Your task to perform on an android device: Go to Maps Image 0: 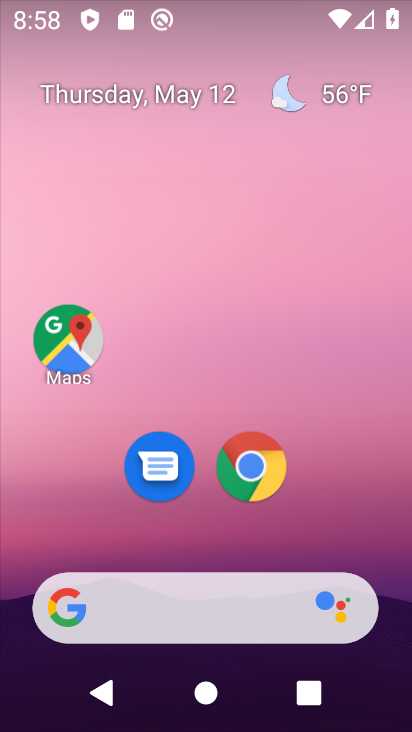
Step 0: click (57, 344)
Your task to perform on an android device: Go to Maps Image 1: 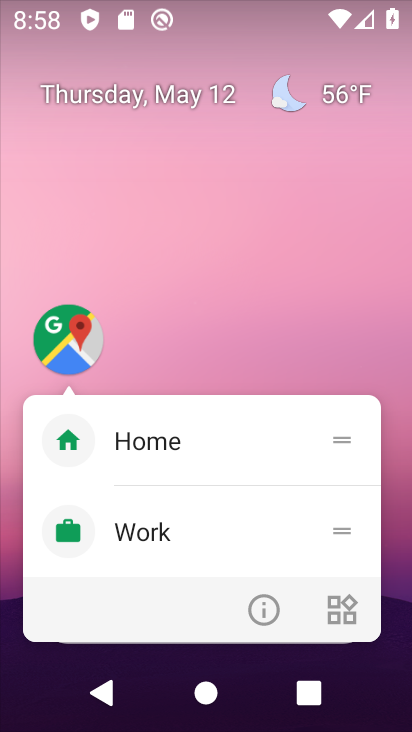
Step 1: click (63, 321)
Your task to perform on an android device: Go to Maps Image 2: 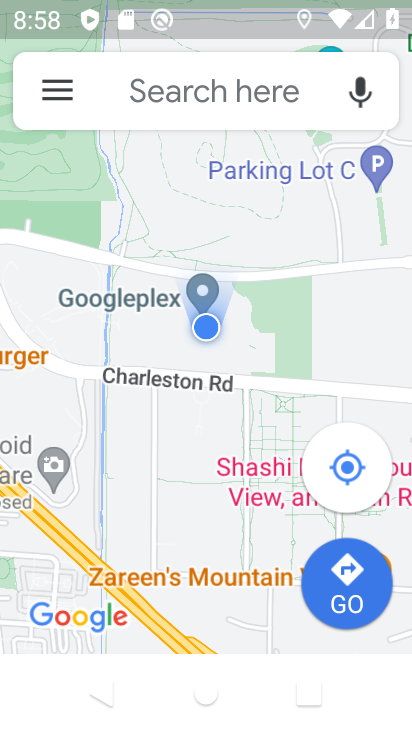
Step 2: task complete